Your task to perform on an android device: open app "Truecaller" Image 0: 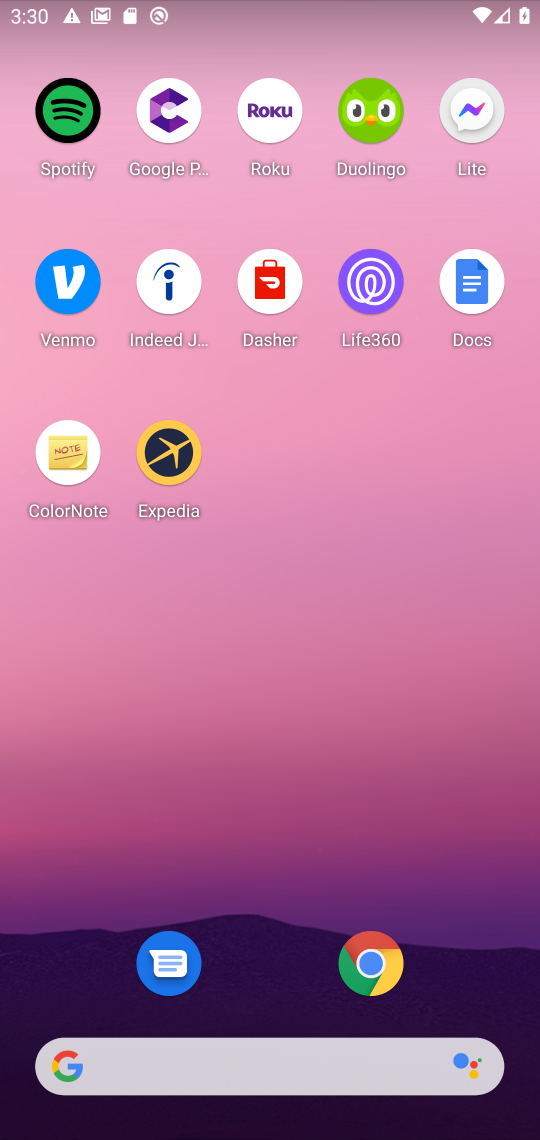
Step 0: drag from (295, 1024) to (235, 213)
Your task to perform on an android device: open app "Truecaller" Image 1: 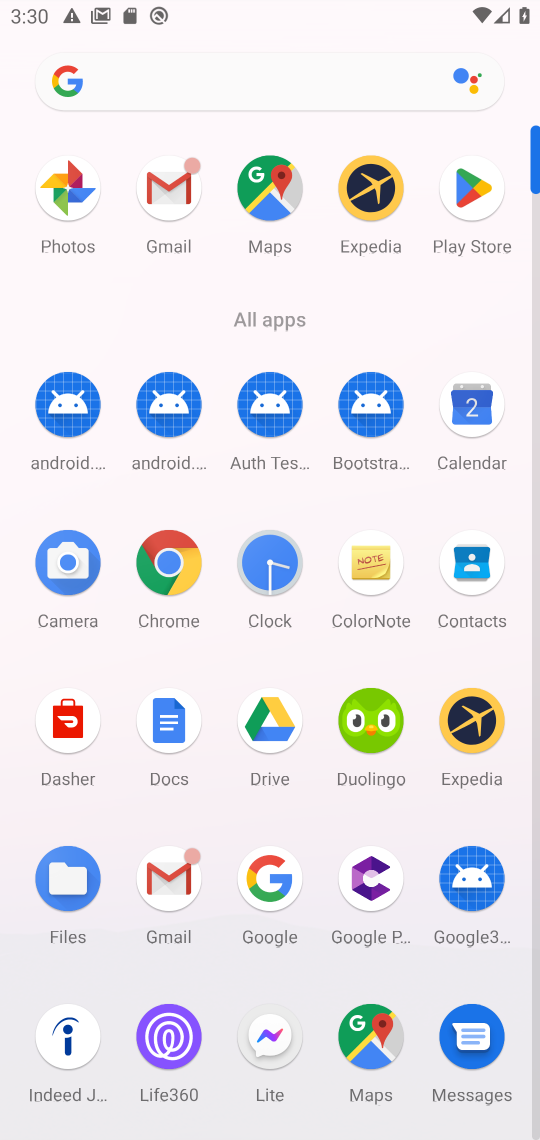
Step 1: click (466, 195)
Your task to perform on an android device: open app "Truecaller" Image 2: 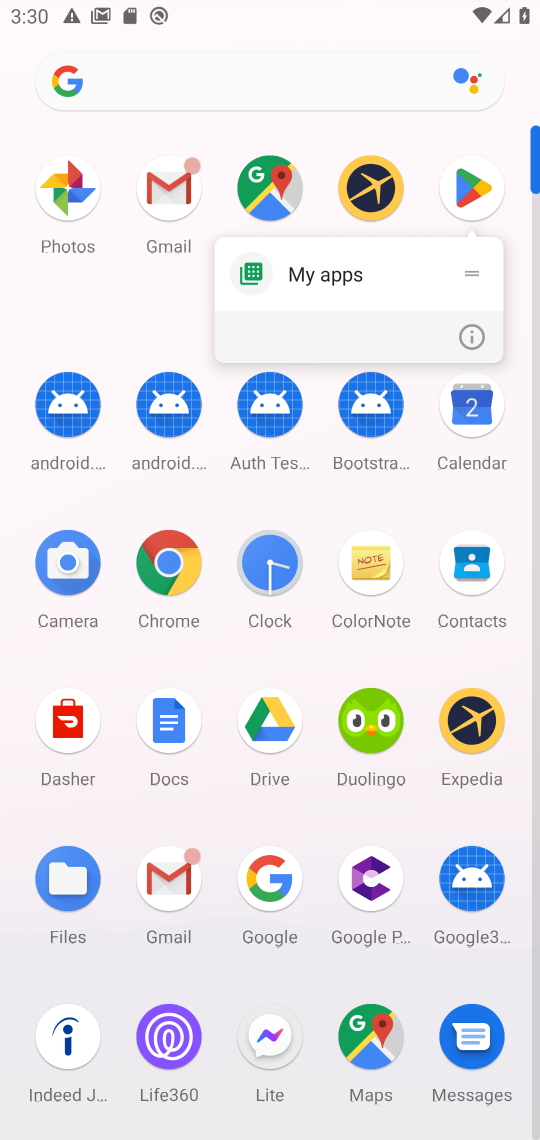
Step 2: click (471, 192)
Your task to perform on an android device: open app "Truecaller" Image 3: 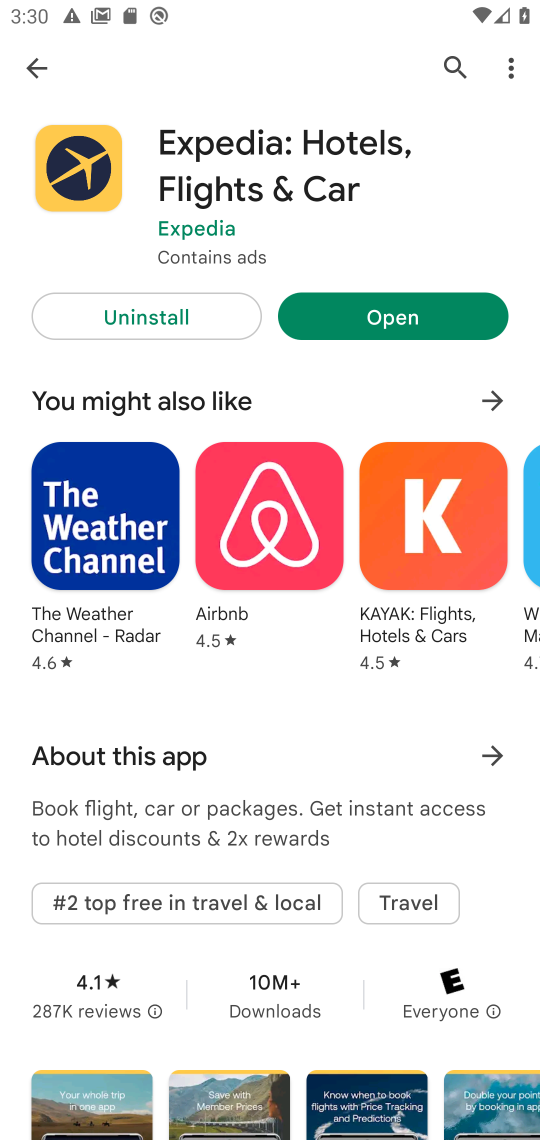
Step 3: click (447, 73)
Your task to perform on an android device: open app "Truecaller" Image 4: 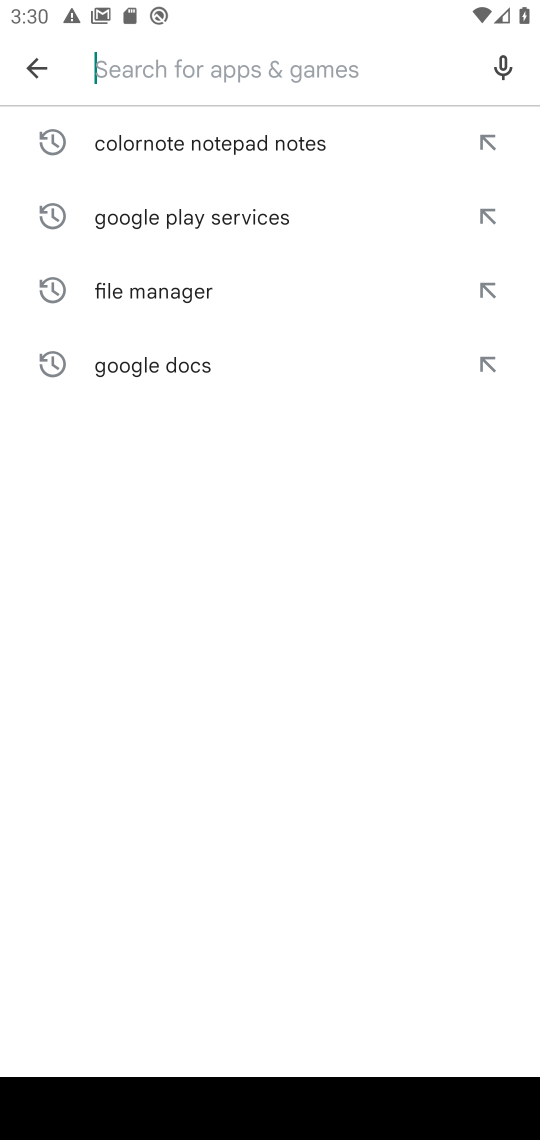
Step 4: type "Truecaller"
Your task to perform on an android device: open app "Truecaller" Image 5: 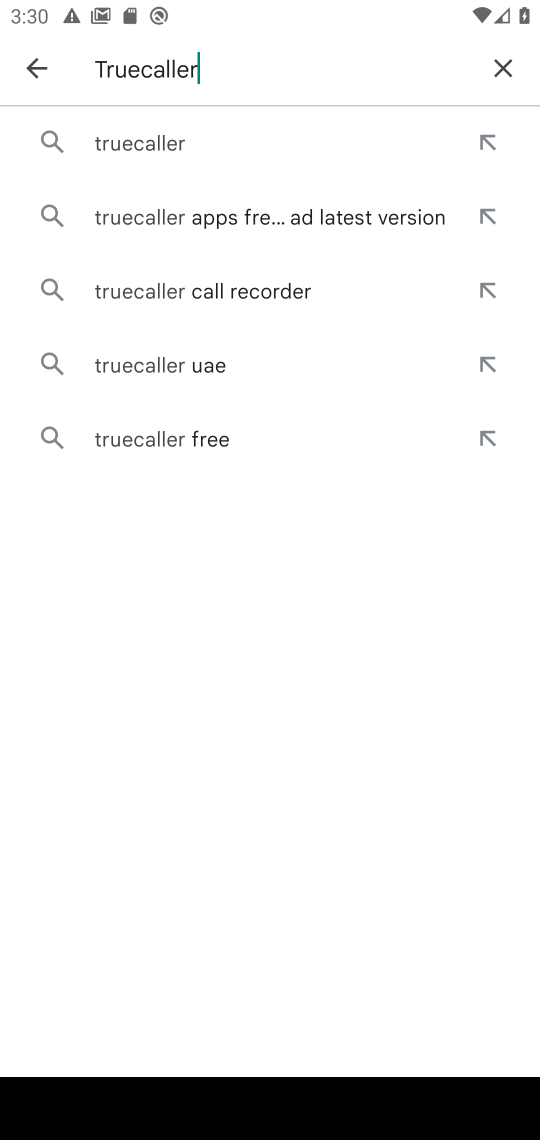
Step 5: click (145, 140)
Your task to perform on an android device: open app "Truecaller" Image 6: 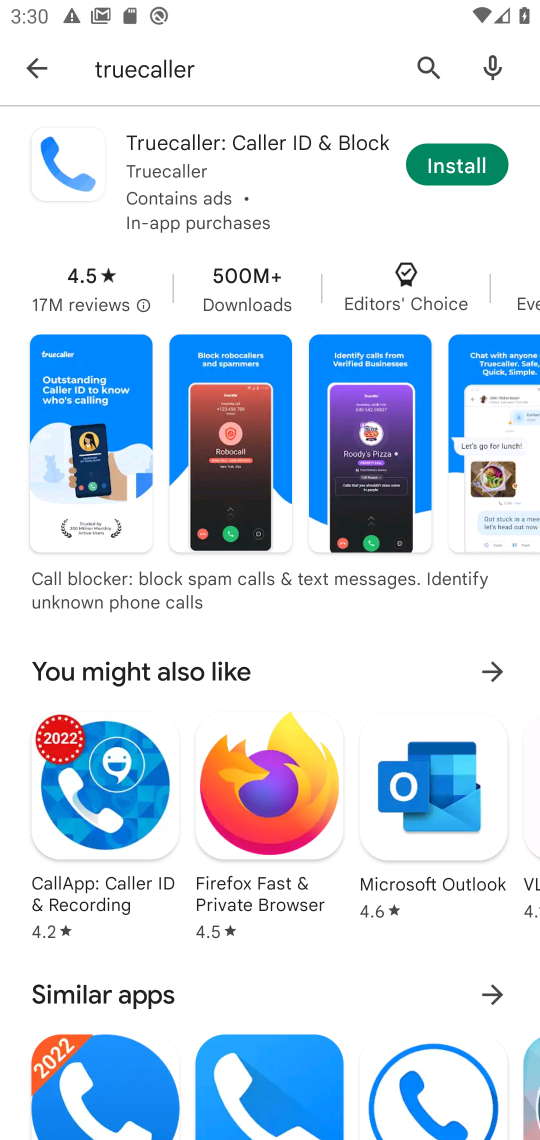
Step 6: click (437, 168)
Your task to perform on an android device: open app "Truecaller" Image 7: 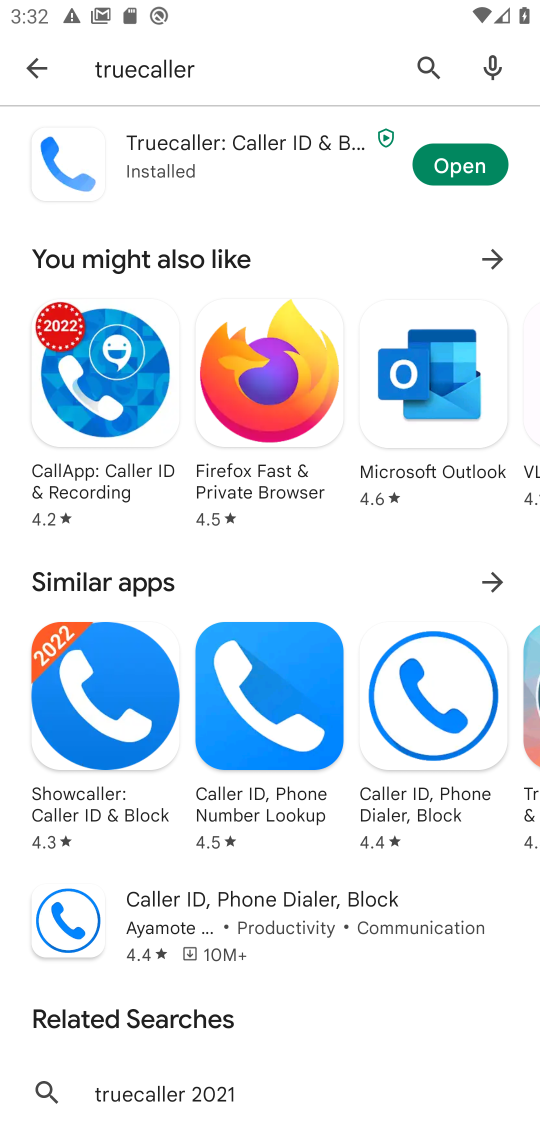
Step 7: click (457, 176)
Your task to perform on an android device: open app "Truecaller" Image 8: 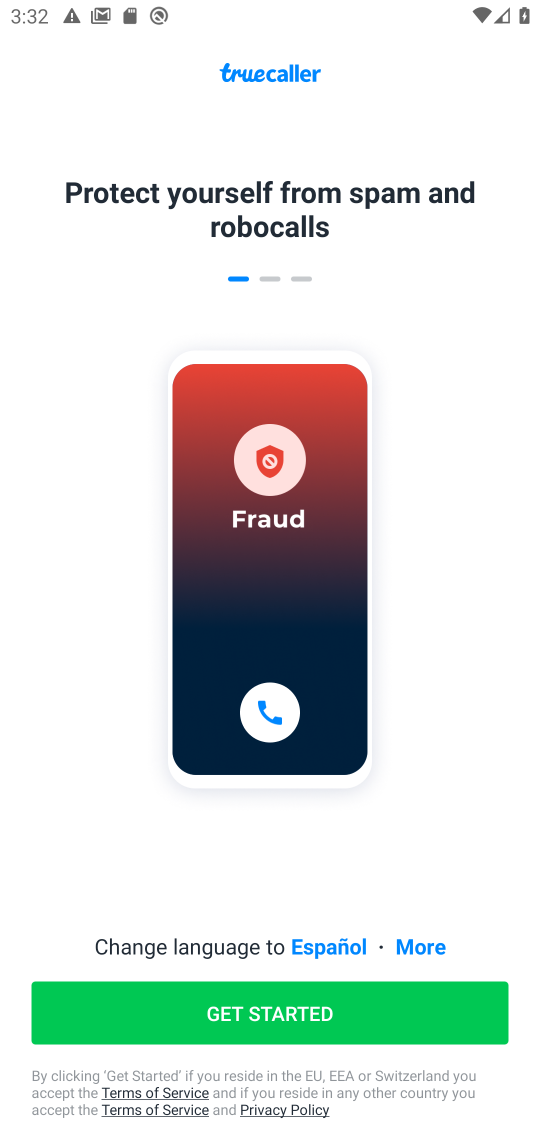
Step 8: task complete